Your task to perform on an android device: Add macbook pro 13 inch to the cart on bestbuy.com, then select checkout. Image 0: 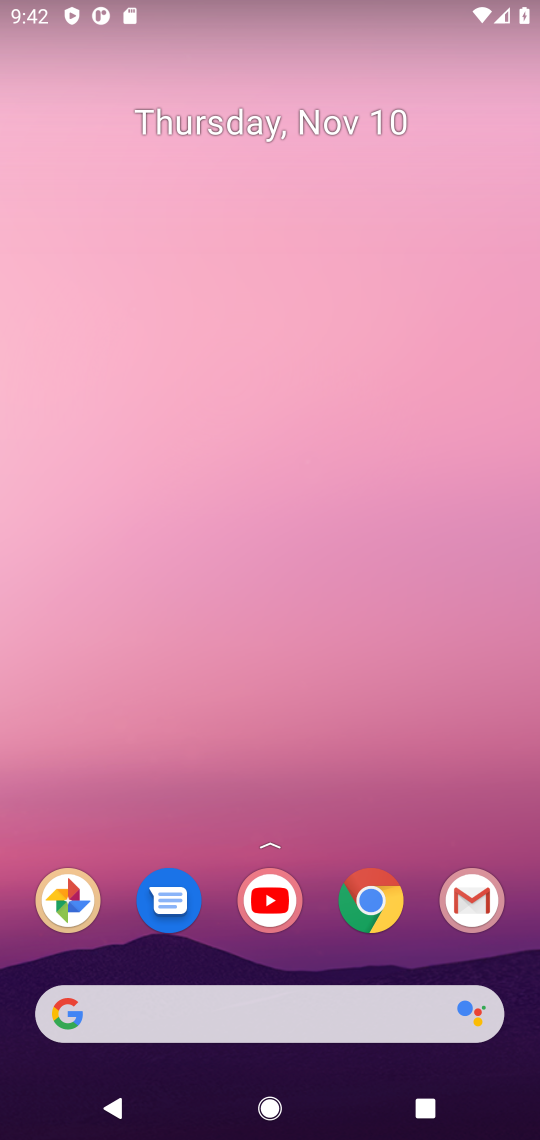
Step 0: click (375, 903)
Your task to perform on an android device: Add macbook pro 13 inch to the cart on bestbuy.com, then select checkout. Image 1: 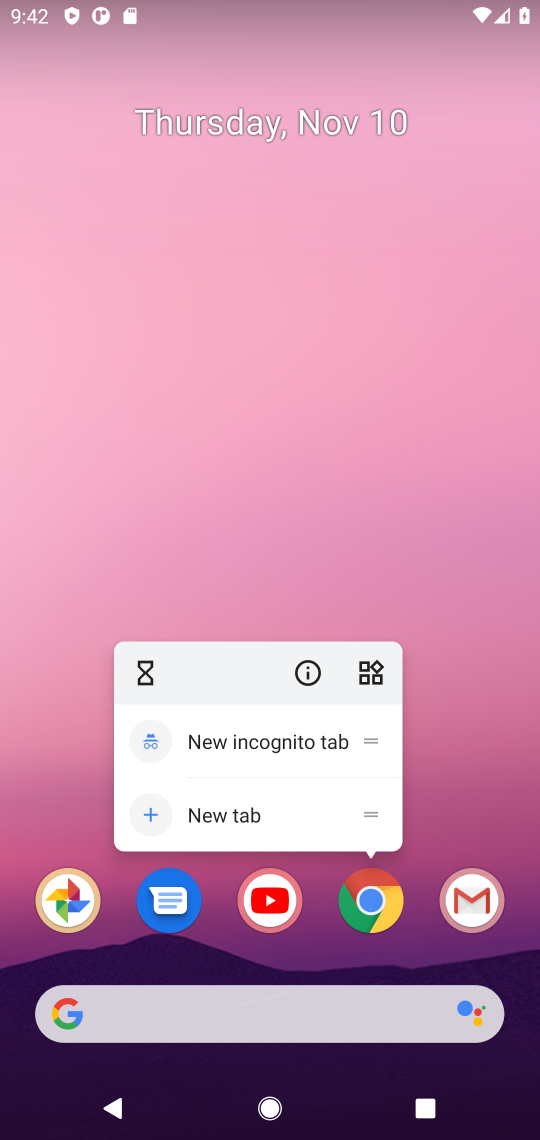
Step 1: click (375, 905)
Your task to perform on an android device: Add macbook pro 13 inch to the cart on bestbuy.com, then select checkout. Image 2: 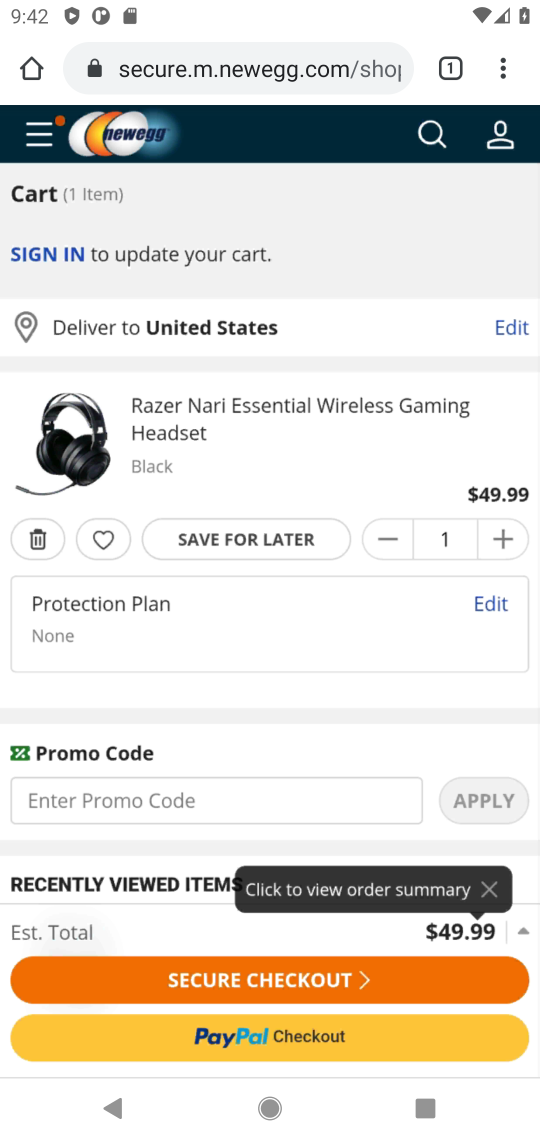
Step 2: click (338, 72)
Your task to perform on an android device: Add macbook pro 13 inch to the cart on bestbuy.com, then select checkout. Image 3: 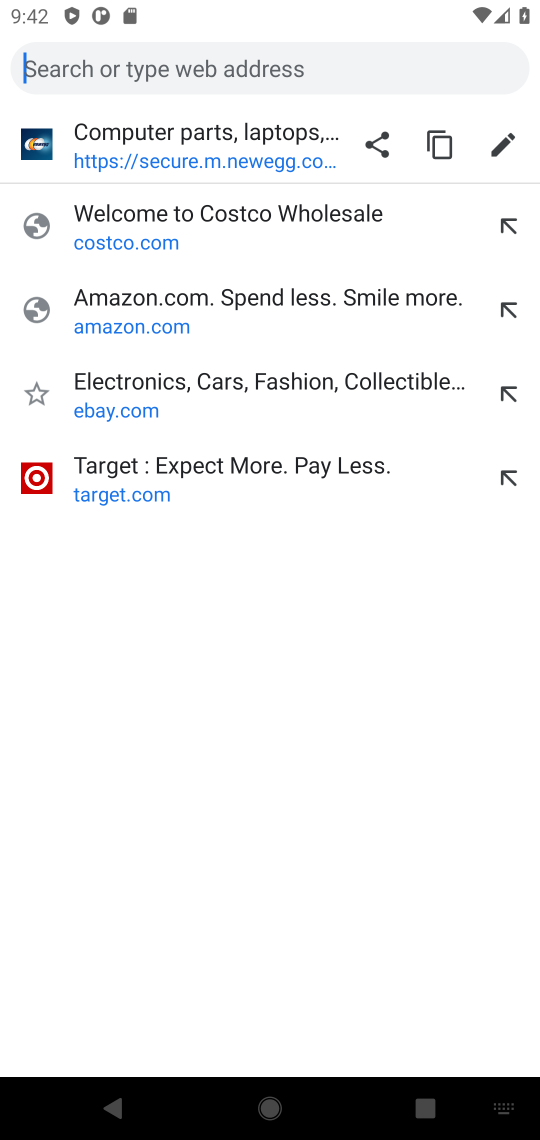
Step 3: type "bestbuy.com"
Your task to perform on an android device: Add macbook pro 13 inch to the cart on bestbuy.com, then select checkout. Image 4: 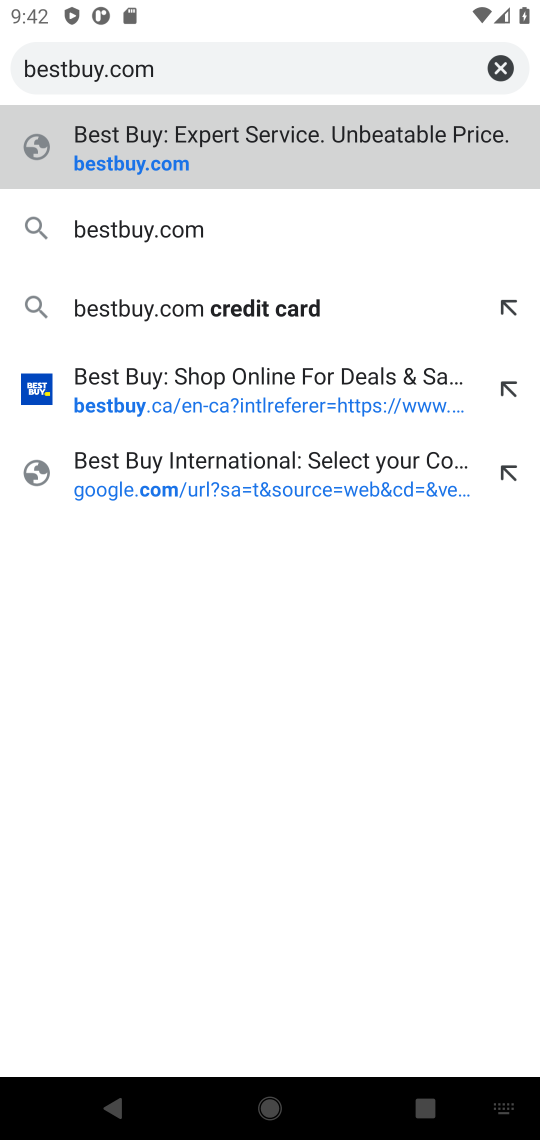
Step 4: press enter
Your task to perform on an android device: Add macbook pro 13 inch to the cart on bestbuy.com, then select checkout. Image 5: 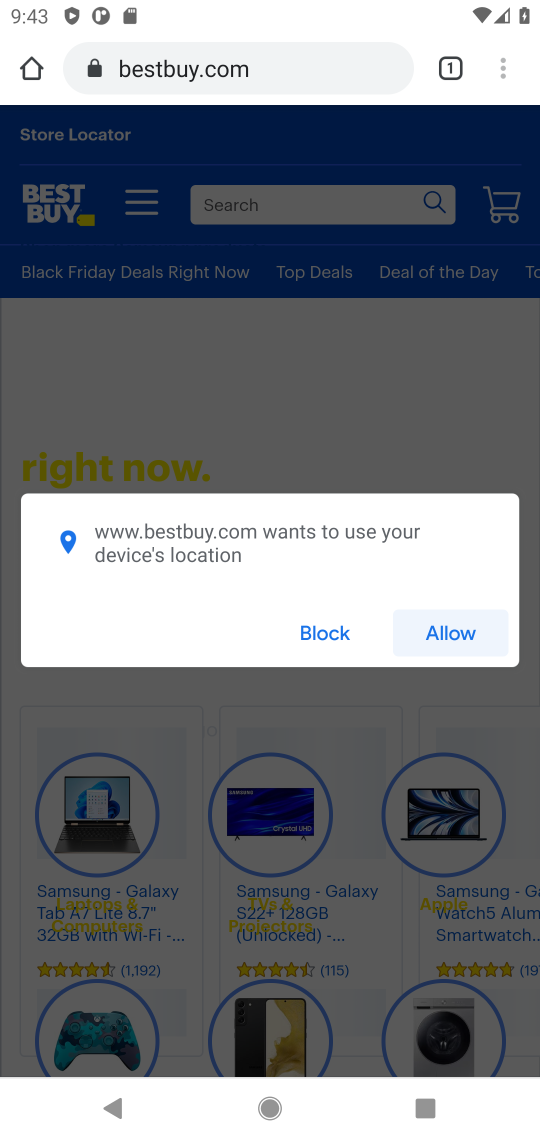
Step 5: click (439, 628)
Your task to perform on an android device: Add macbook pro 13 inch to the cart on bestbuy.com, then select checkout. Image 6: 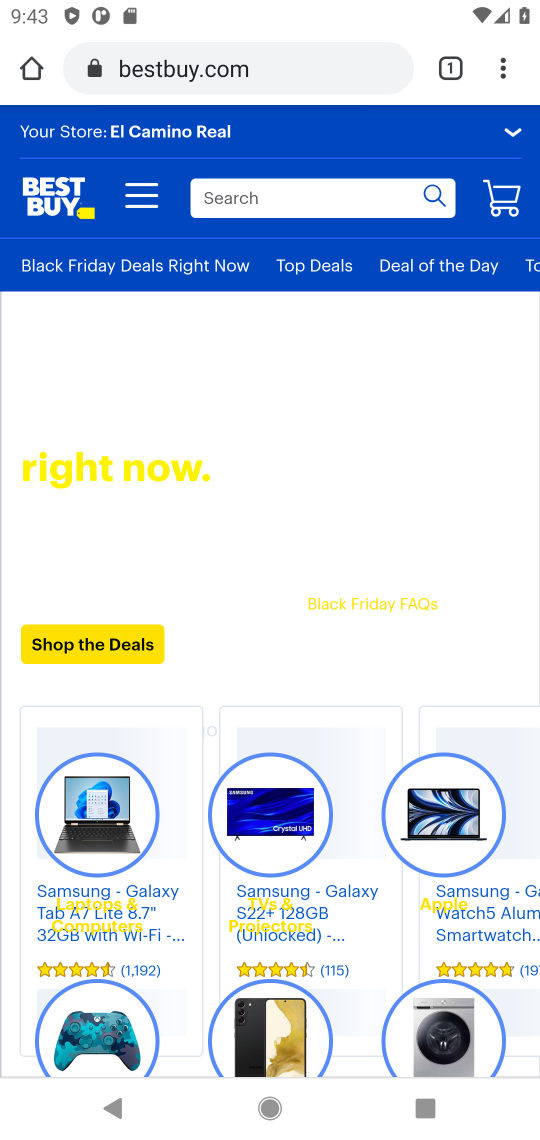
Step 6: click (320, 191)
Your task to perform on an android device: Add macbook pro 13 inch to the cart on bestbuy.com, then select checkout. Image 7: 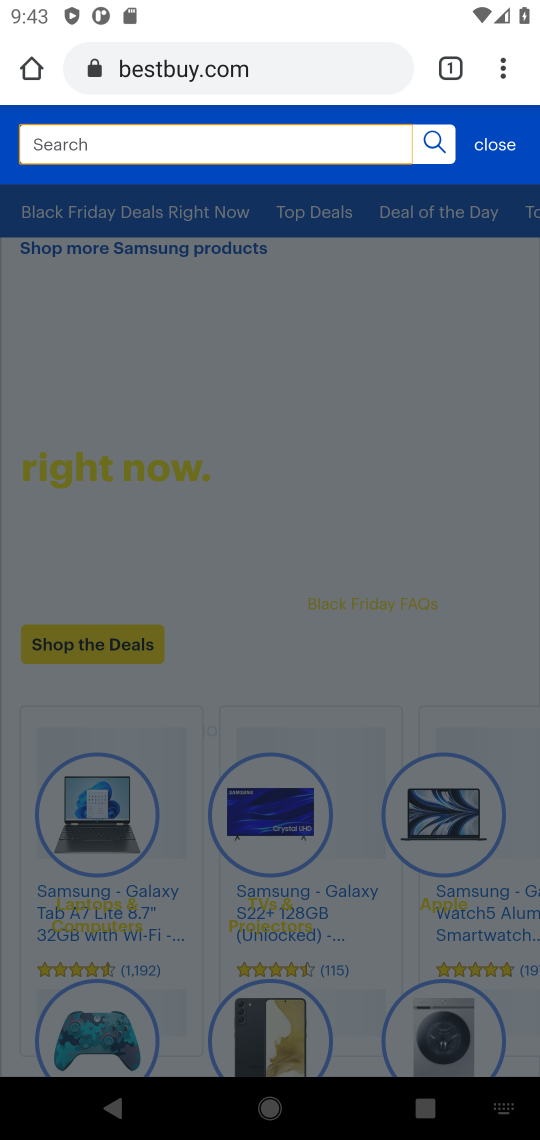
Step 7: type "macbook pro 13 inch "
Your task to perform on an android device: Add macbook pro 13 inch to the cart on bestbuy.com, then select checkout. Image 8: 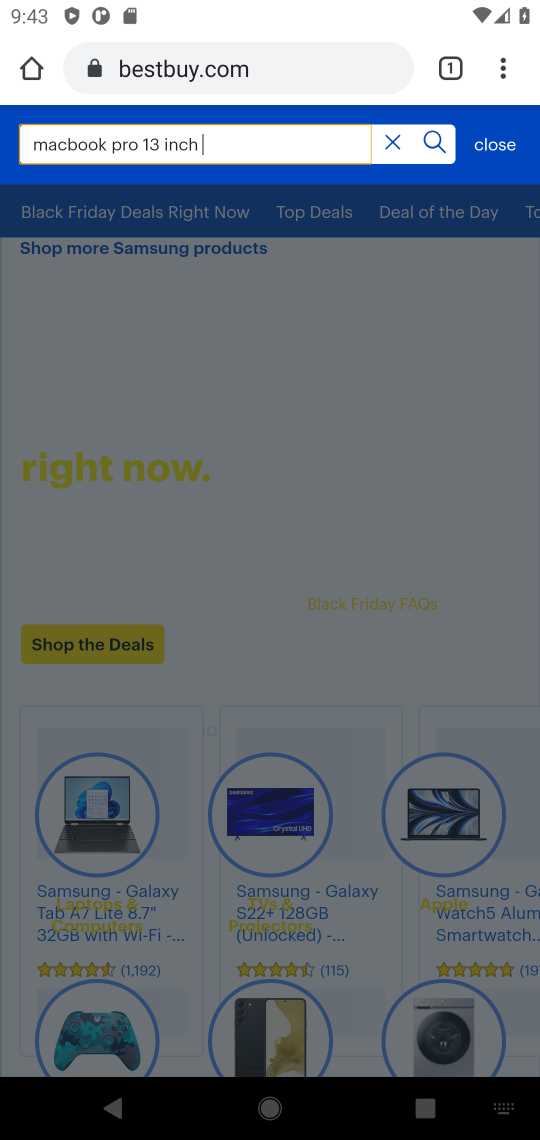
Step 8: press enter
Your task to perform on an android device: Add macbook pro 13 inch to the cart on bestbuy.com, then select checkout. Image 9: 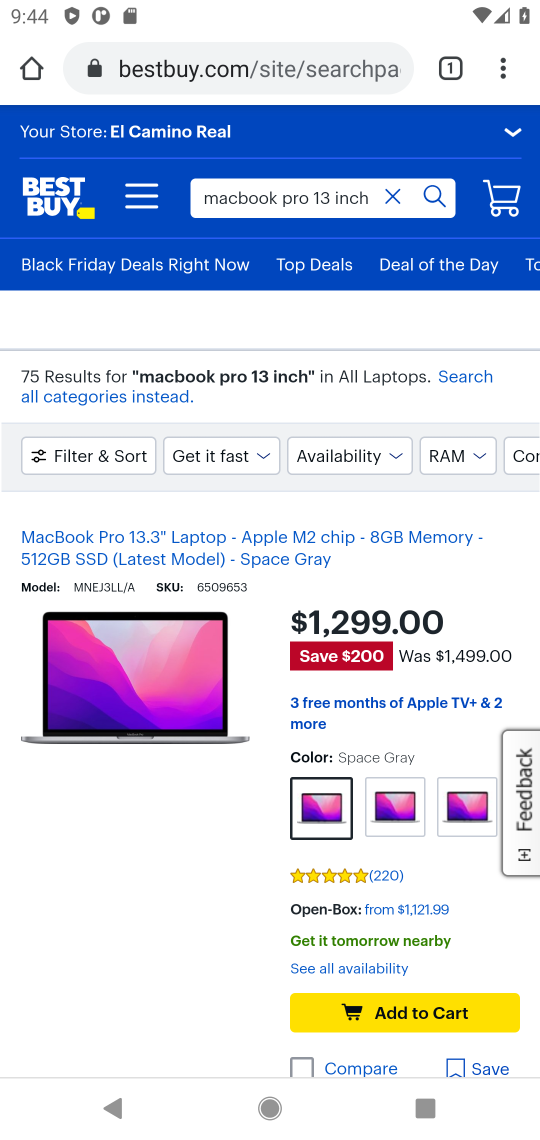
Step 9: task complete